Your task to perform on an android device: change the clock style Image 0: 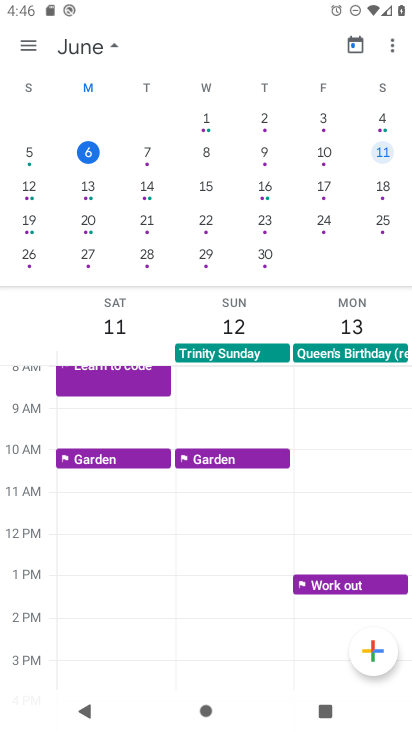
Step 0: press home button
Your task to perform on an android device: change the clock style Image 1: 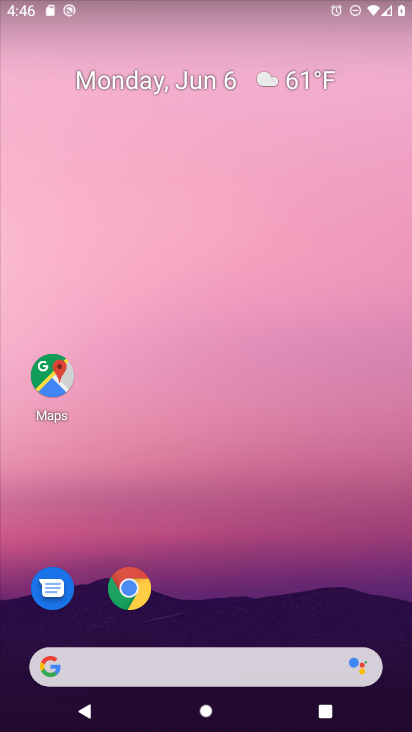
Step 1: drag from (268, 605) to (244, 133)
Your task to perform on an android device: change the clock style Image 2: 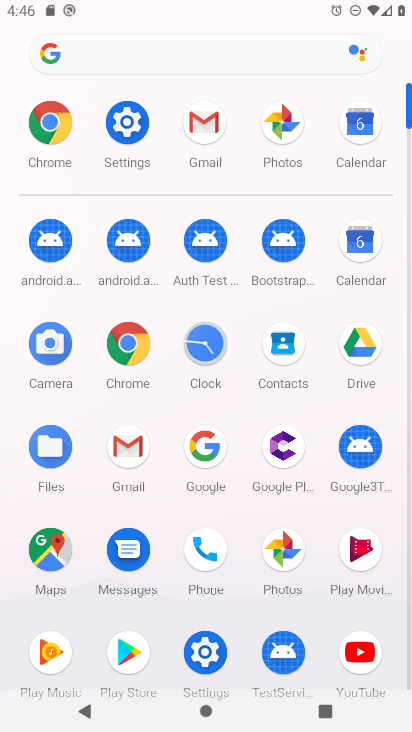
Step 2: click (214, 354)
Your task to perform on an android device: change the clock style Image 3: 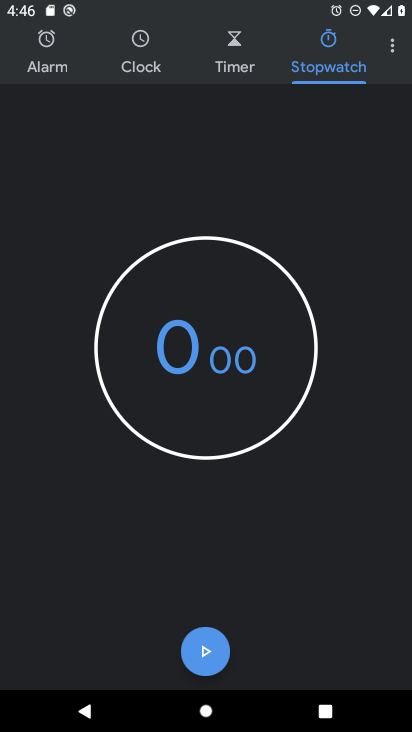
Step 3: click (392, 67)
Your task to perform on an android device: change the clock style Image 4: 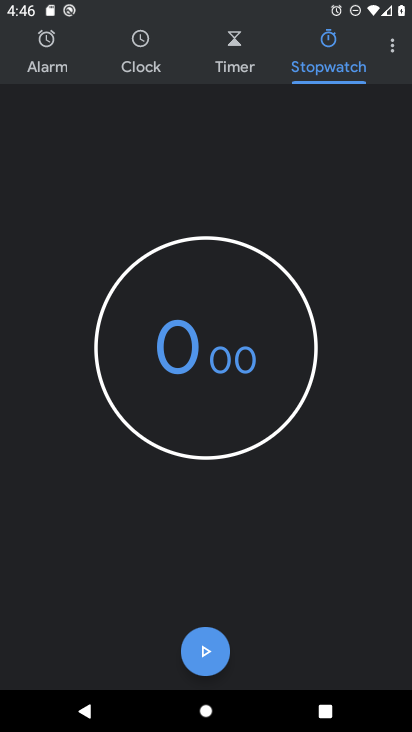
Step 4: click (392, 57)
Your task to perform on an android device: change the clock style Image 5: 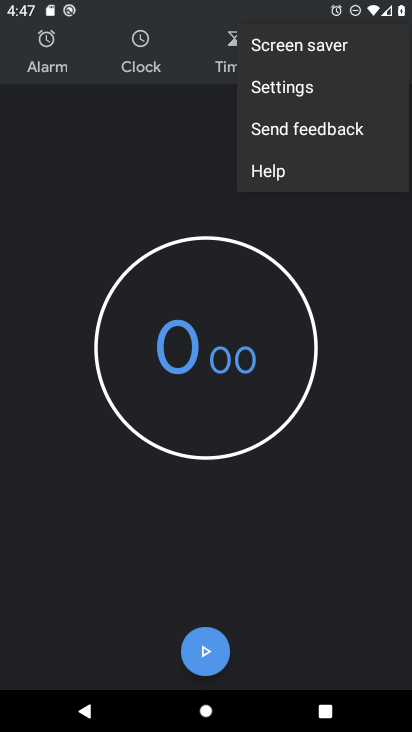
Step 5: click (330, 91)
Your task to perform on an android device: change the clock style Image 6: 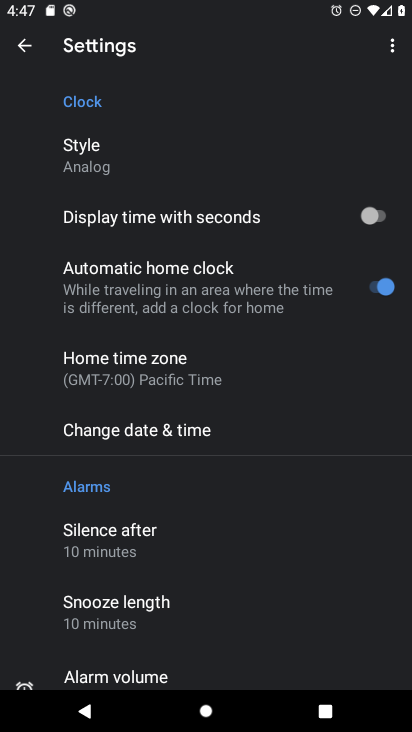
Step 6: click (127, 163)
Your task to perform on an android device: change the clock style Image 7: 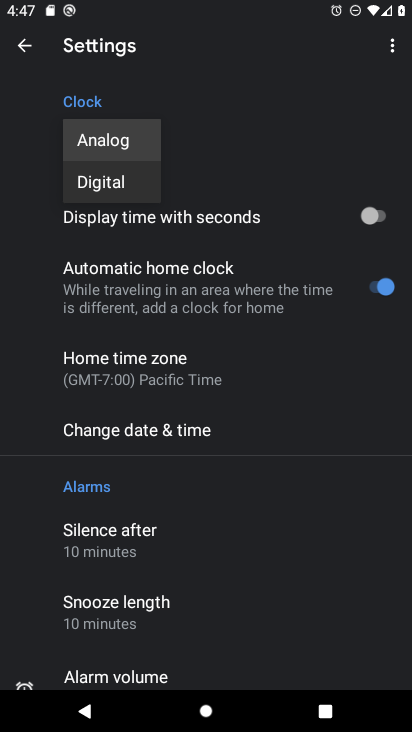
Step 7: click (130, 178)
Your task to perform on an android device: change the clock style Image 8: 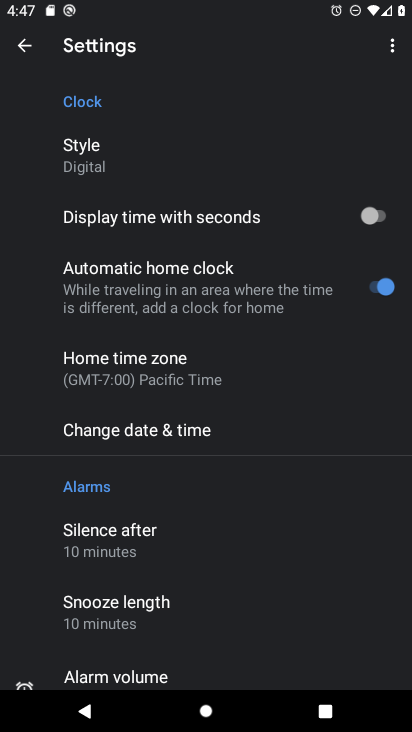
Step 8: task complete